Your task to perform on an android device: turn on translation in the chrome app Image 0: 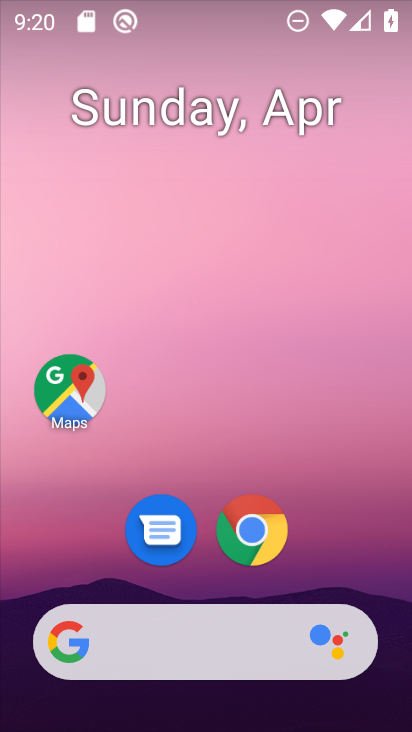
Step 0: click (257, 535)
Your task to perform on an android device: turn on translation in the chrome app Image 1: 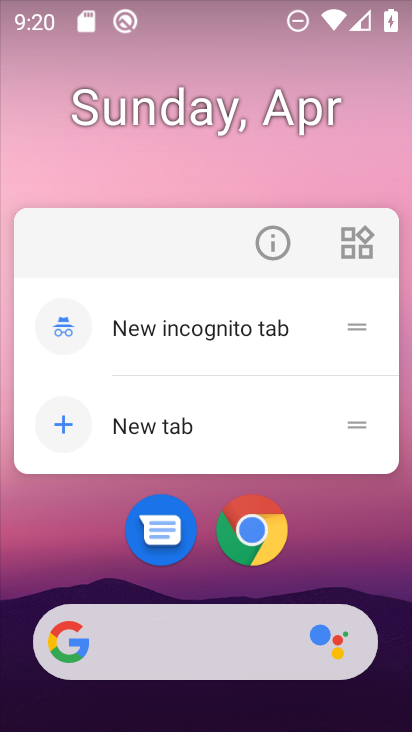
Step 1: click (250, 526)
Your task to perform on an android device: turn on translation in the chrome app Image 2: 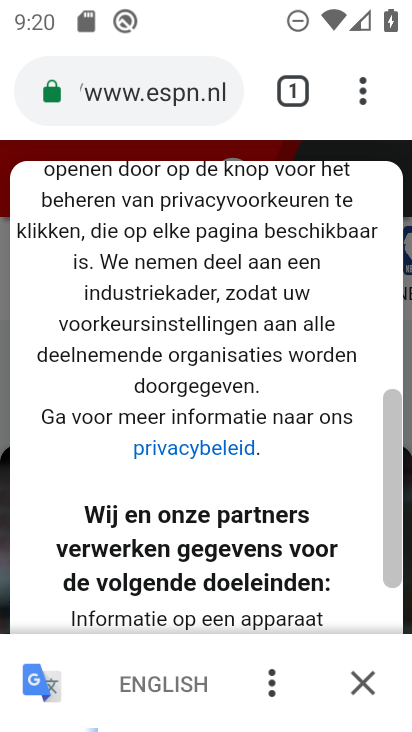
Step 2: click (362, 90)
Your task to perform on an android device: turn on translation in the chrome app Image 3: 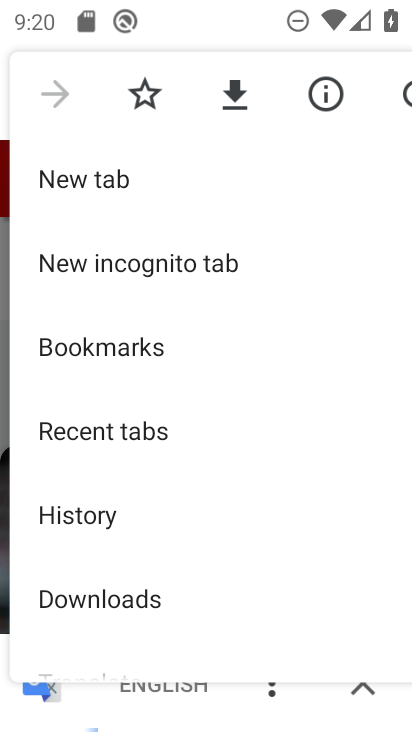
Step 3: drag from (246, 471) to (264, 145)
Your task to perform on an android device: turn on translation in the chrome app Image 4: 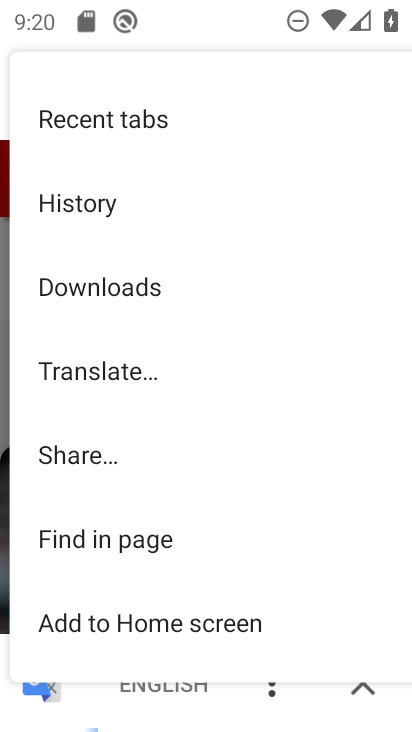
Step 4: drag from (181, 537) to (203, 213)
Your task to perform on an android device: turn on translation in the chrome app Image 5: 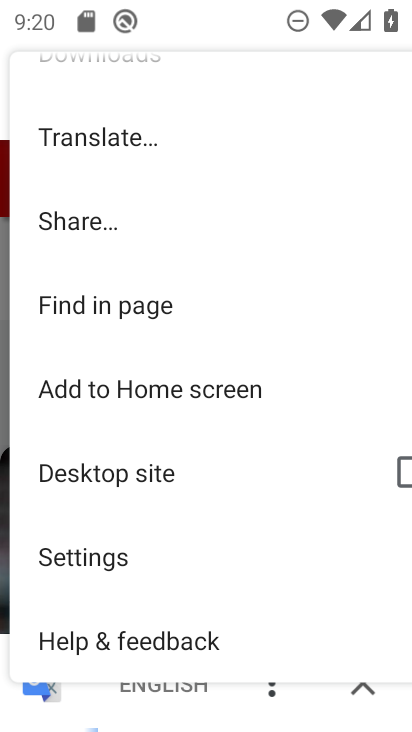
Step 5: click (103, 567)
Your task to perform on an android device: turn on translation in the chrome app Image 6: 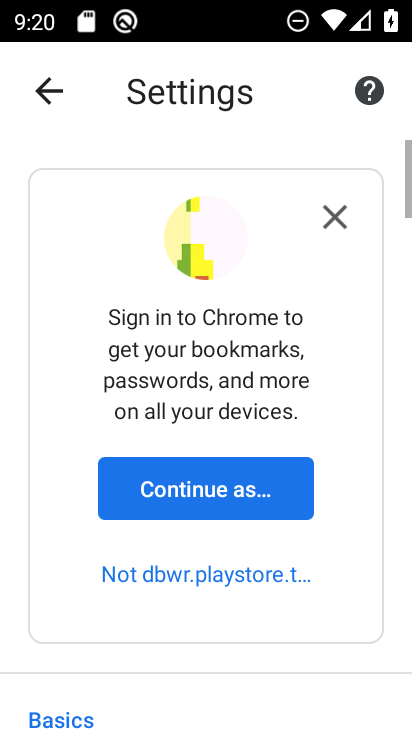
Step 6: drag from (205, 587) to (220, 165)
Your task to perform on an android device: turn on translation in the chrome app Image 7: 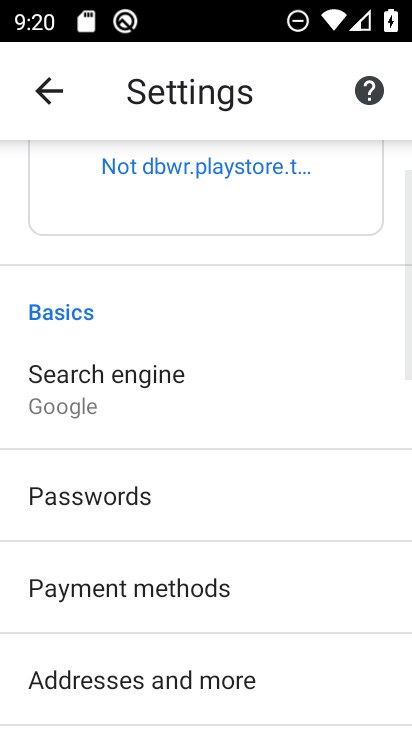
Step 7: drag from (171, 529) to (182, 166)
Your task to perform on an android device: turn on translation in the chrome app Image 8: 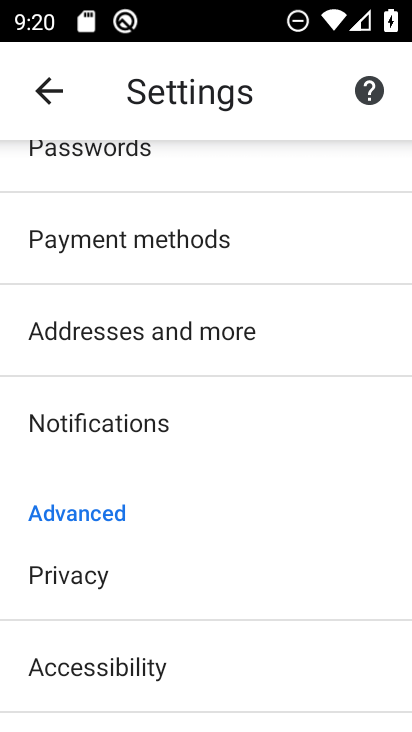
Step 8: drag from (150, 547) to (156, 180)
Your task to perform on an android device: turn on translation in the chrome app Image 9: 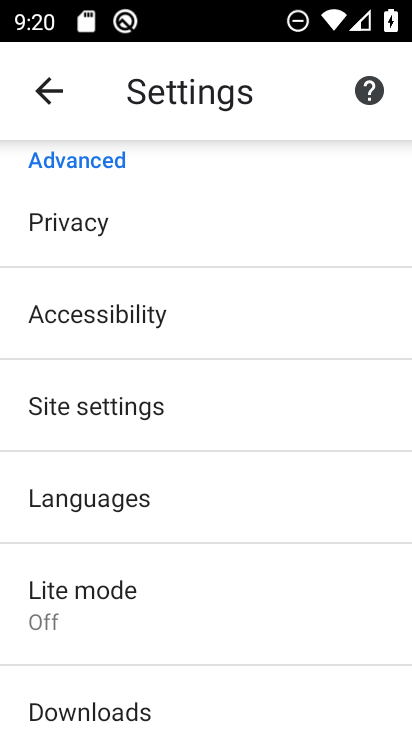
Step 9: click (100, 508)
Your task to perform on an android device: turn on translation in the chrome app Image 10: 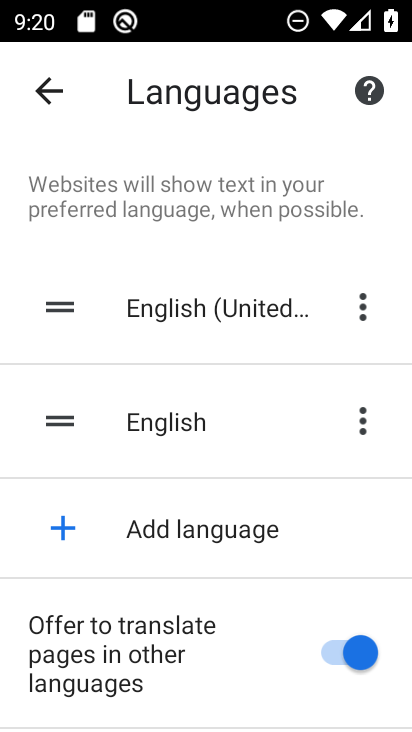
Step 10: task complete